Your task to perform on an android device: Open Google Chrome and open the bookmarks view Image 0: 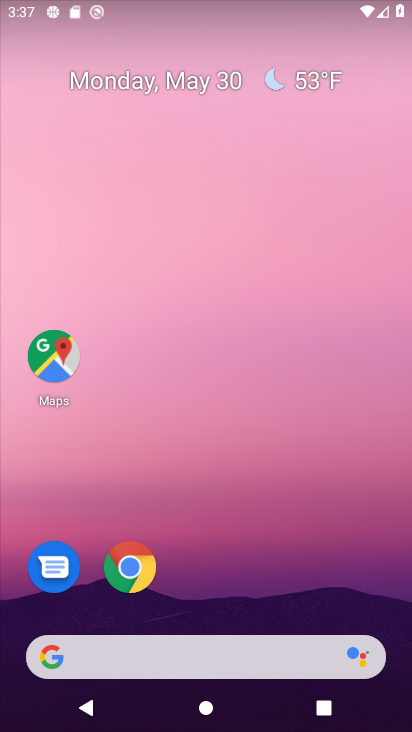
Step 0: drag from (292, 665) to (298, 84)
Your task to perform on an android device: Open Google Chrome and open the bookmarks view Image 1: 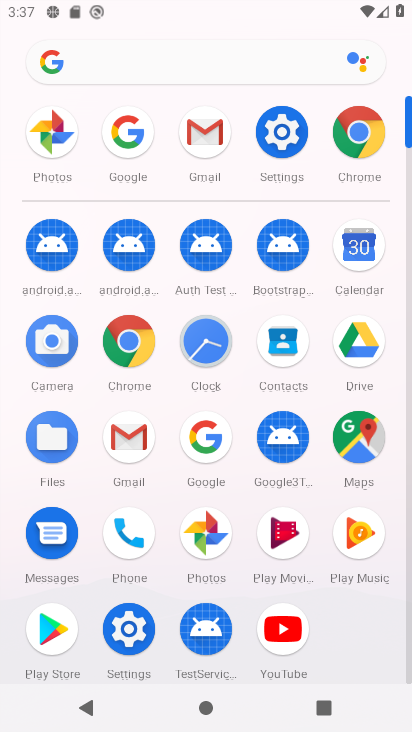
Step 1: click (127, 330)
Your task to perform on an android device: Open Google Chrome and open the bookmarks view Image 2: 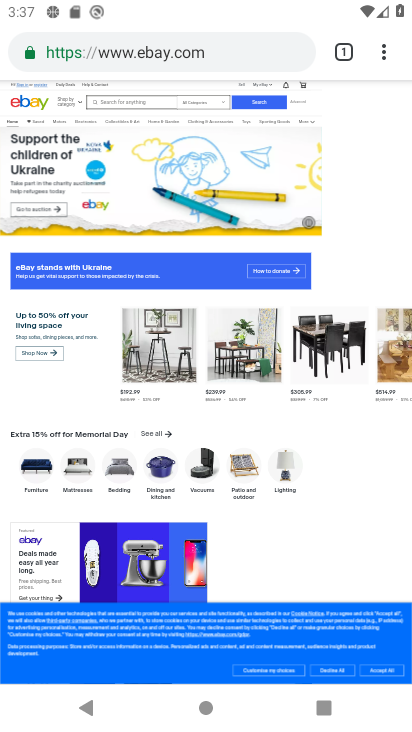
Step 2: task complete